Your task to perform on an android device: Set the phone to "Do not disturb". Image 0: 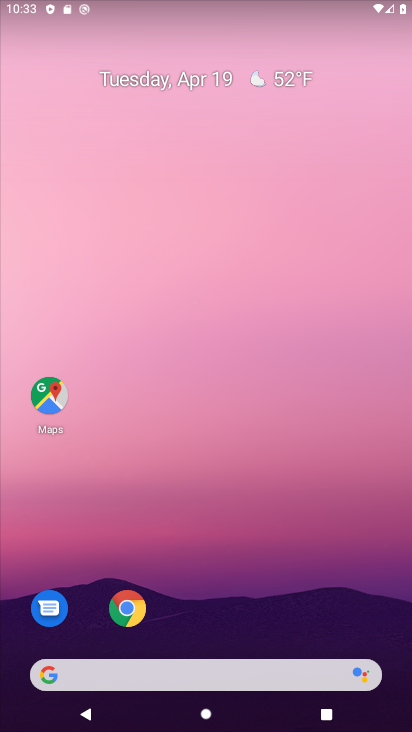
Step 0: drag from (352, 593) to (349, 203)
Your task to perform on an android device: Set the phone to "Do not disturb". Image 1: 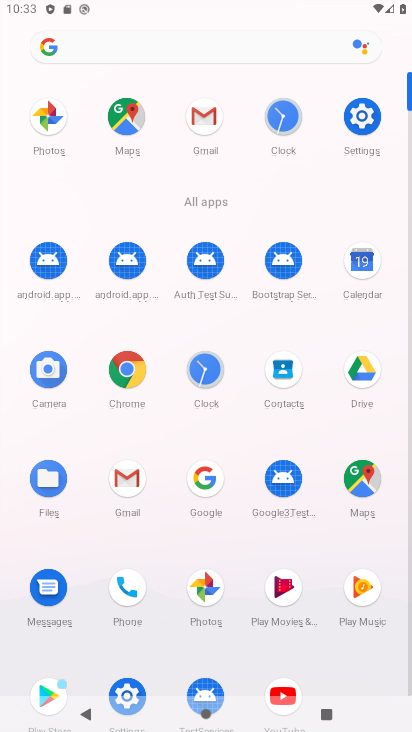
Step 1: click (356, 125)
Your task to perform on an android device: Set the phone to "Do not disturb". Image 2: 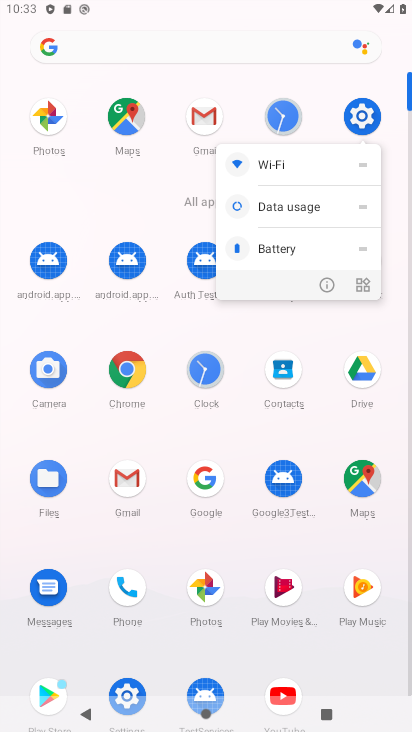
Step 2: click (356, 126)
Your task to perform on an android device: Set the phone to "Do not disturb". Image 3: 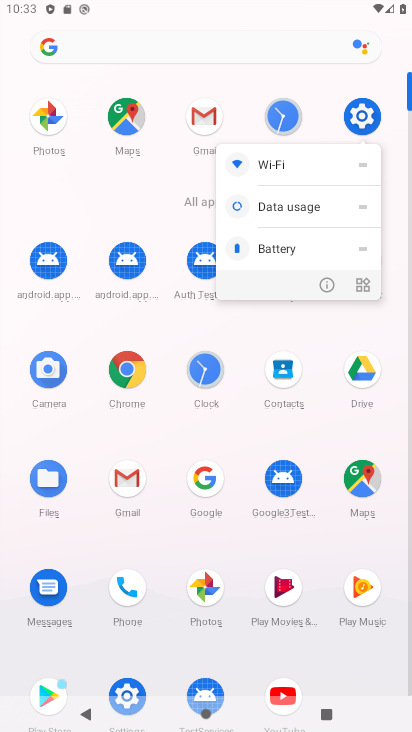
Step 3: click (359, 112)
Your task to perform on an android device: Set the phone to "Do not disturb". Image 4: 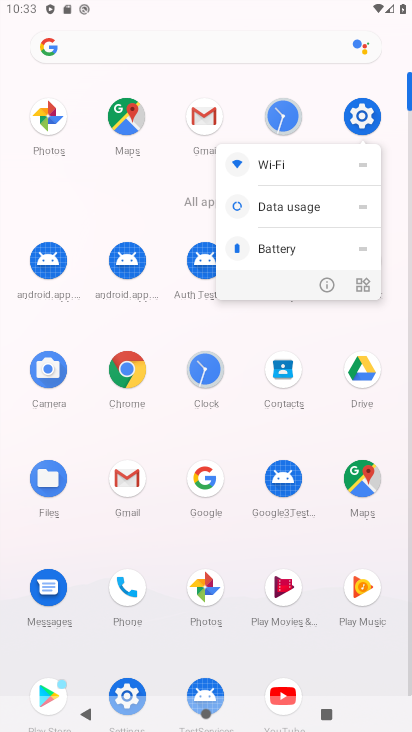
Step 4: click (359, 114)
Your task to perform on an android device: Set the phone to "Do not disturb". Image 5: 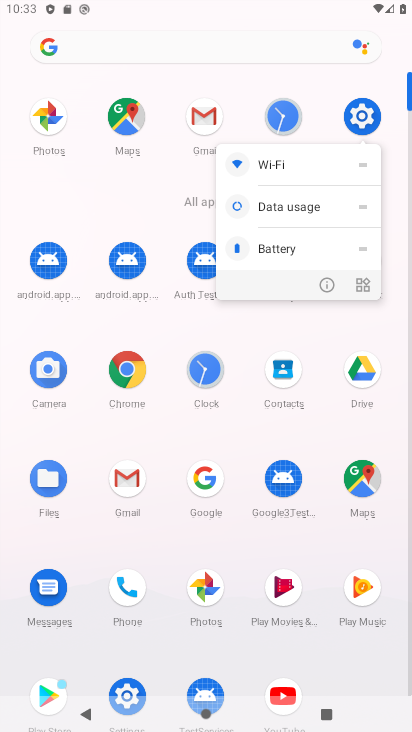
Step 5: click (359, 114)
Your task to perform on an android device: Set the phone to "Do not disturb". Image 6: 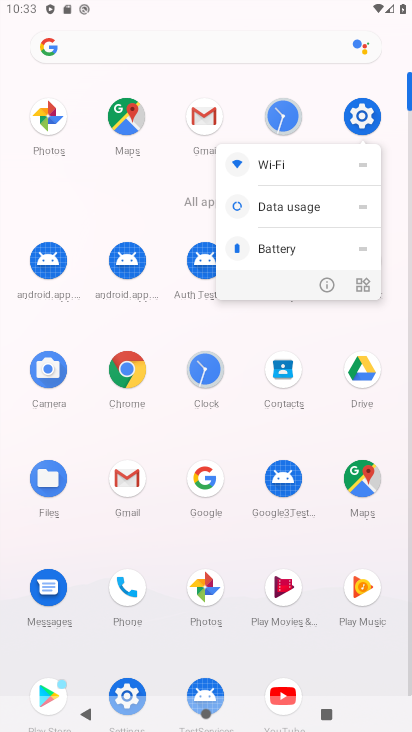
Step 6: click (359, 114)
Your task to perform on an android device: Set the phone to "Do not disturb". Image 7: 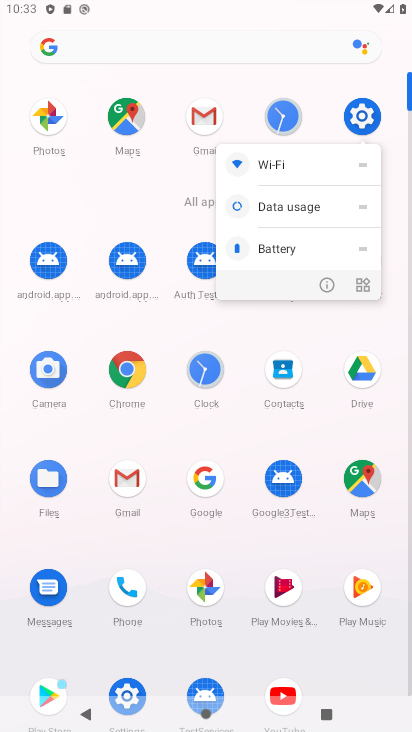
Step 7: click (359, 114)
Your task to perform on an android device: Set the phone to "Do not disturb". Image 8: 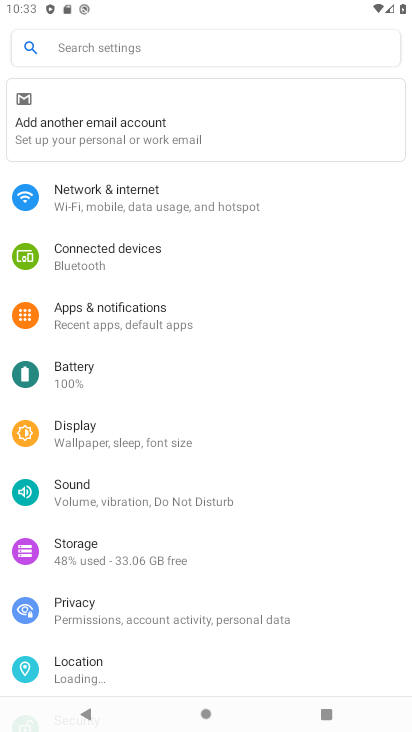
Step 8: click (94, 501)
Your task to perform on an android device: Set the phone to "Do not disturb". Image 9: 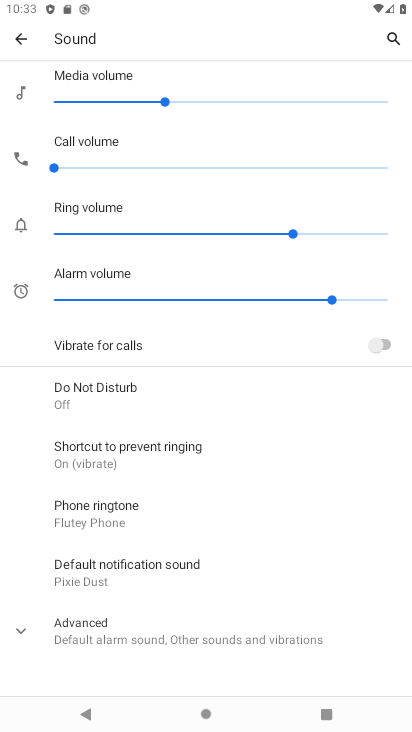
Step 9: click (50, 394)
Your task to perform on an android device: Set the phone to "Do not disturb". Image 10: 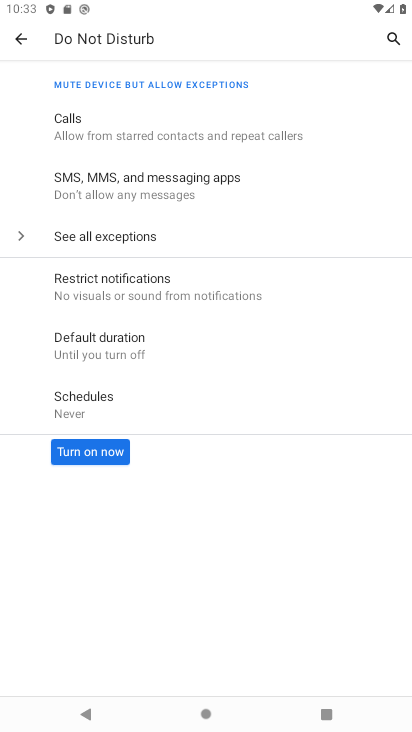
Step 10: click (93, 452)
Your task to perform on an android device: Set the phone to "Do not disturb". Image 11: 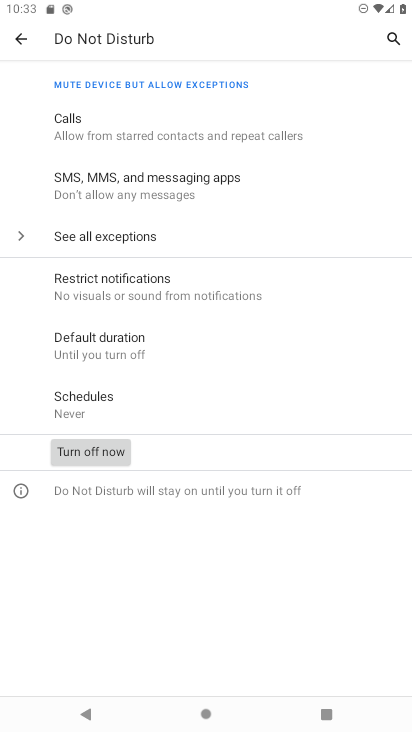
Step 11: task complete